Your task to perform on an android device: check battery use Image 0: 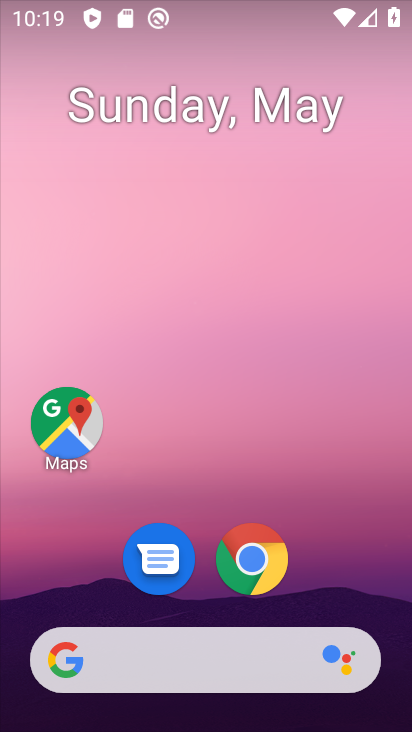
Step 0: drag from (223, 15) to (239, 515)
Your task to perform on an android device: check battery use Image 1: 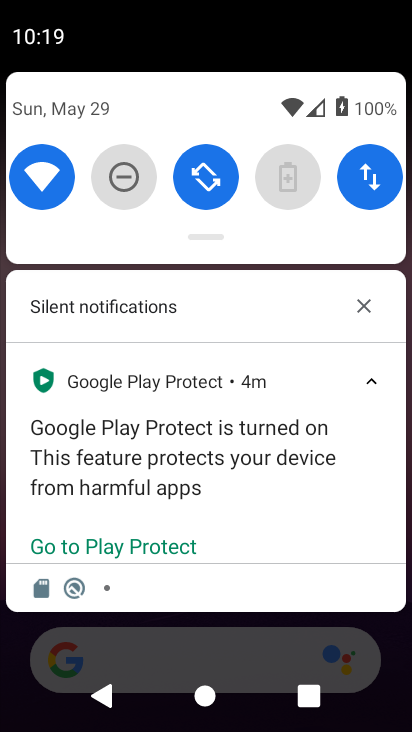
Step 1: click (290, 193)
Your task to perform on an android device: check battery use Image 2: 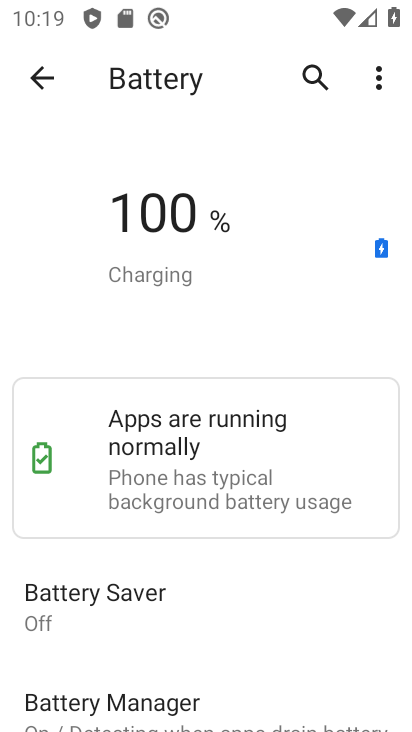
Step 2: click (377, 82)
Your task to perform on an android device: check battery use Image 3: 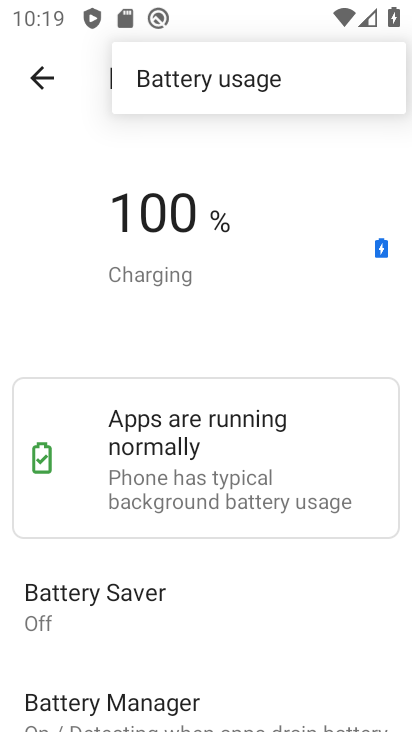
Step 3: click (321, 78)
Your task to perform on an android device: check battery use Image 4: 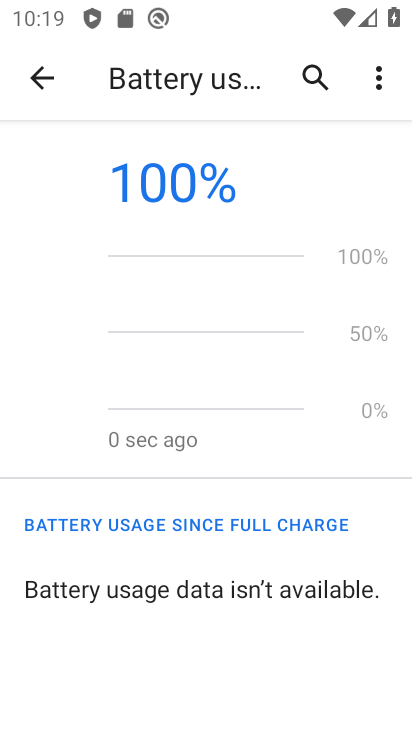
Step 4: task complete